Your task to perform on an android device: Open the stopwatch Image 0: 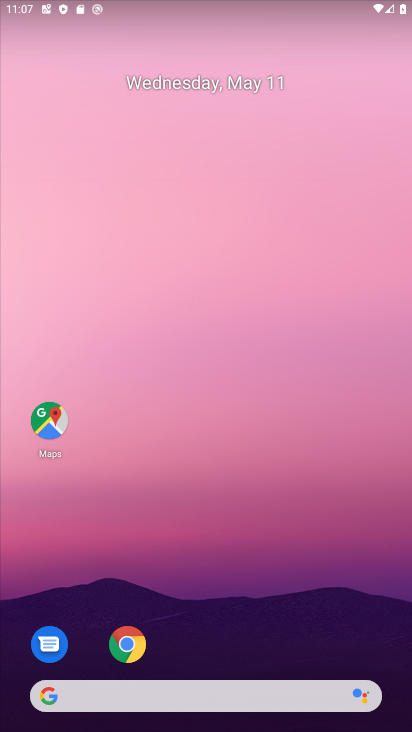
Step 0: drag from (260, 645) to (215, 238)
Your task to perform on an android device: Open the stopwatch Image 1: 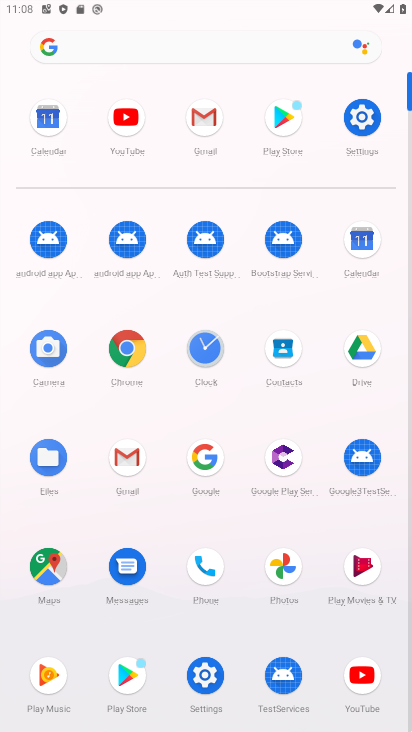
Step 1: click (377, 132)
Your task to perform on an android device: Open the stopwatch Image 2: 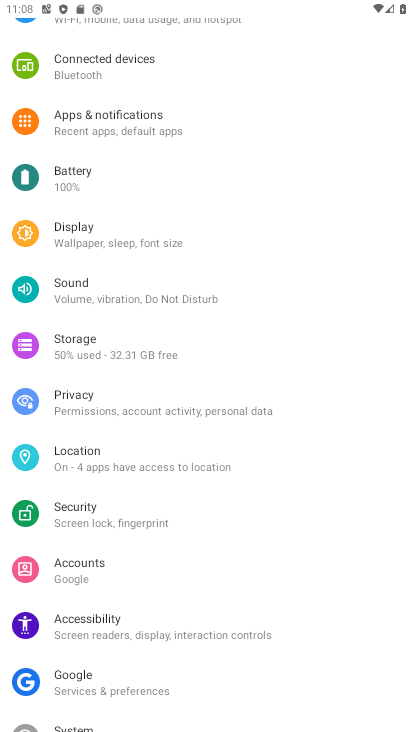
Step 2: drag from (182, 301) to (193, 572)
Your task to perform on an android device: Open the stopwatch Image 3: 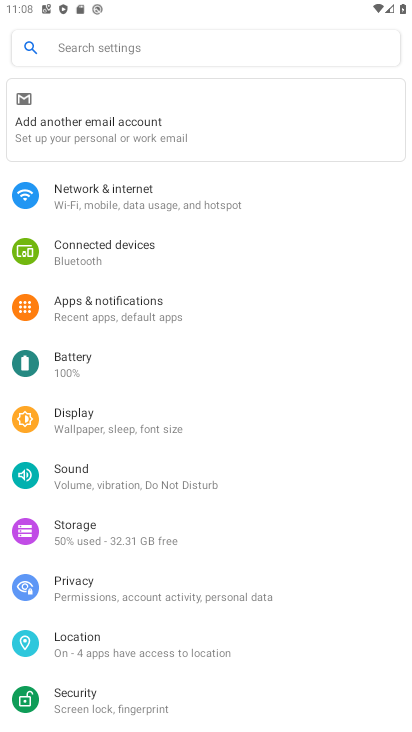
Step 3: press home button
Your task to perform on an android device: Open the stopwatch Image 4: 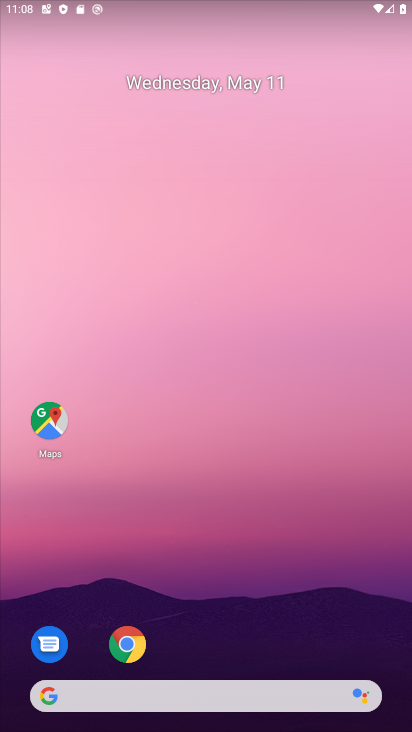
Step 4: drag from (294, 560) to (267, 249)
Your task to perform on an android device: Open the stopwatch Image 5: 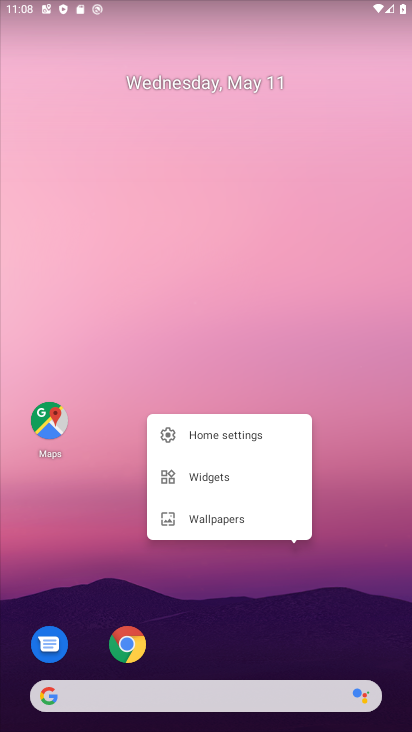
Step 5: click (355, 547)
Your task to perform on an android device: Open the stopwatch Image 6: 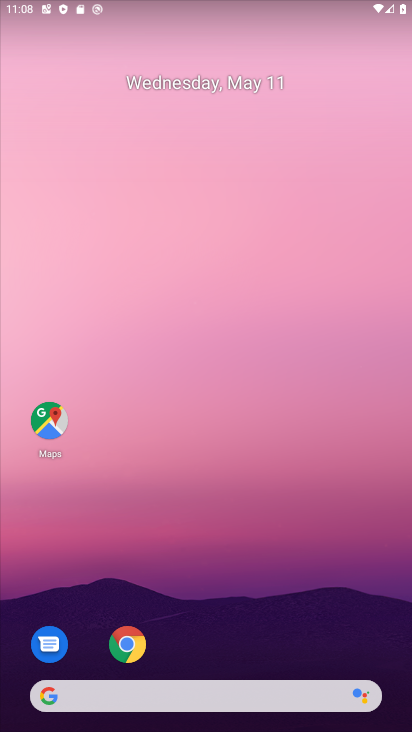
Step 6: drag from (314, 597) to (285, 148)
Your task to perform on an android device: Open the stopwatch Image 7: 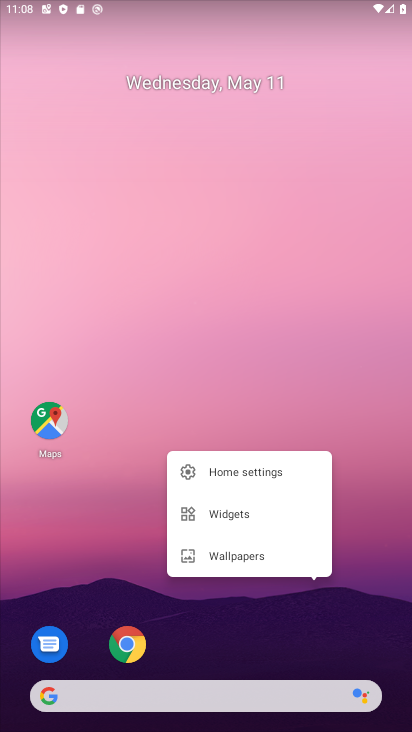
Step 7: click (275, 303)
Your task to perform on an android device: Open the stopwatch Image 8: 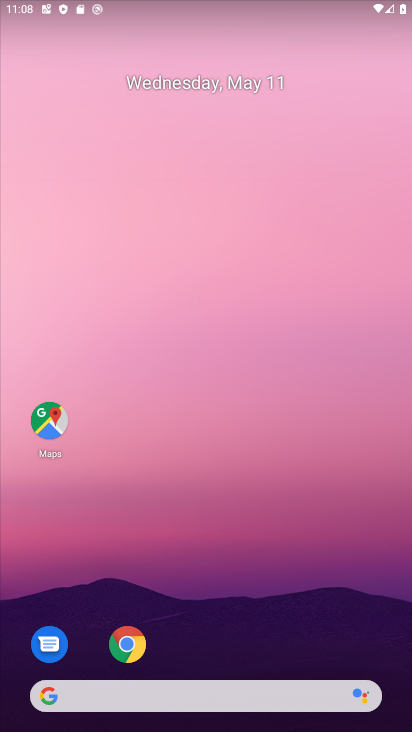
Step 8: drag from (271, 613) to (254, 53)
Your task to perform on an android device: Open the stopwatch Image 9: 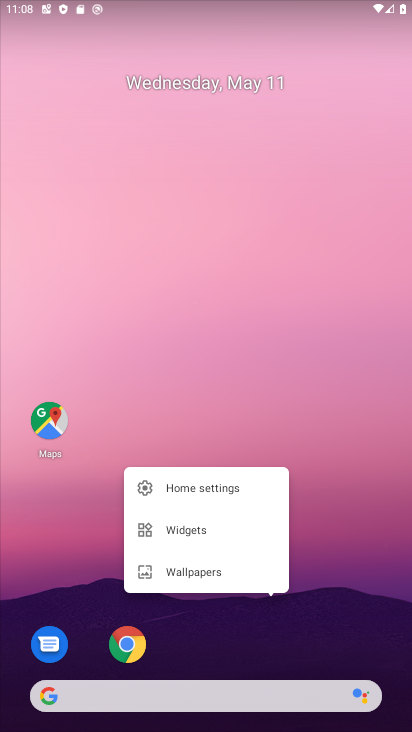
Step 9: click (352, 534)
Your task to perform on an android device: Open the stopwatch Image 10: 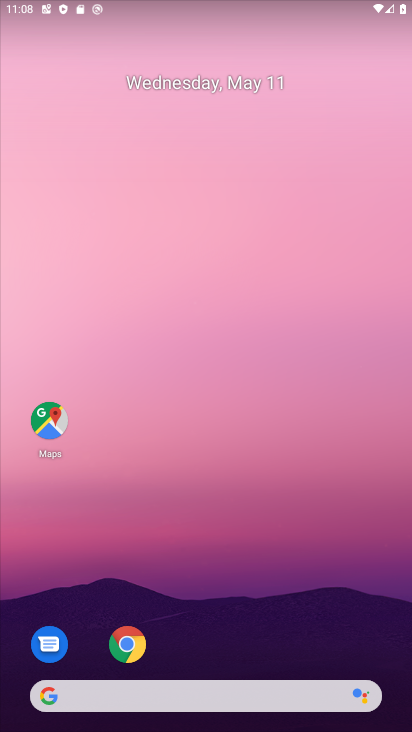
Step 10: drag from (297, 617) to (239, 221)
Your task to perform on an android device: Open the stopwatch Image 11: 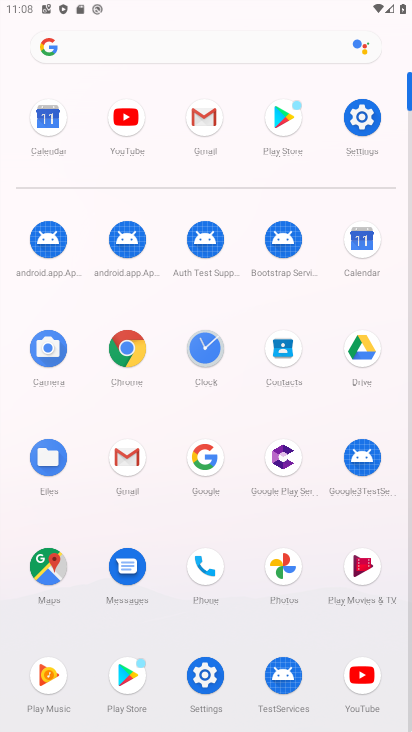
Step 11: click (213, 349)
Your task to perform on an android device: Open the stopwatch Image 12: 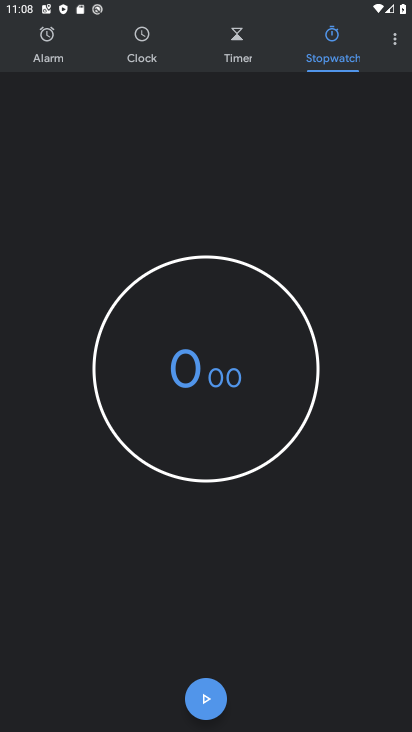
Step 12: task complete